Your task to perform on an android device: search for starred emails in the gmail app Image 0: 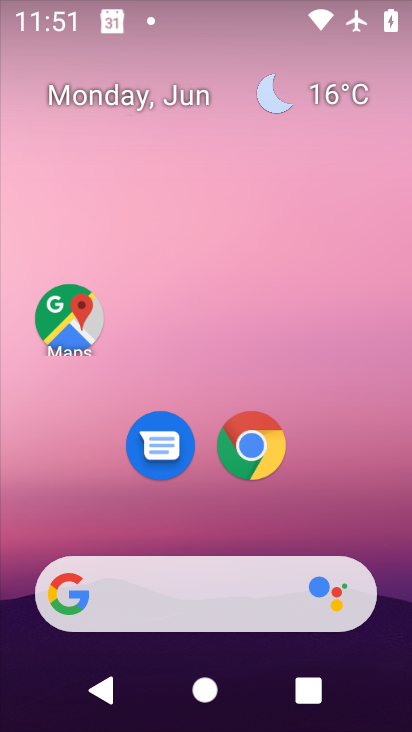
Step 0: drag from (353, 503) to (292, 132)
Your task to perform on an android device: search for starred emails in the gmail app Image 1: 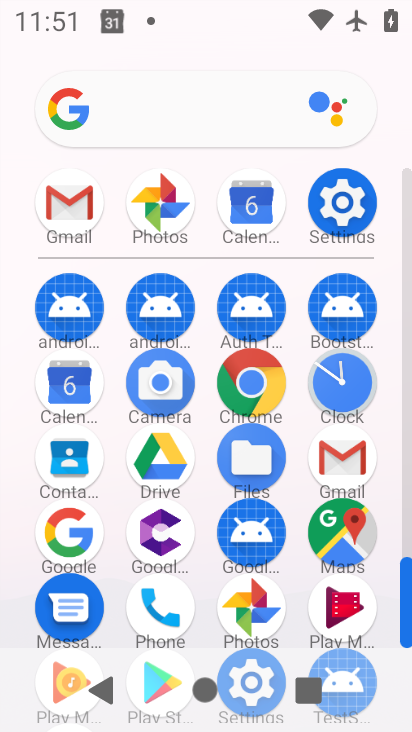
Step 1: click (80, 205)
Your task to perform on an android device: search for starred emails in the gmail app Image 2: 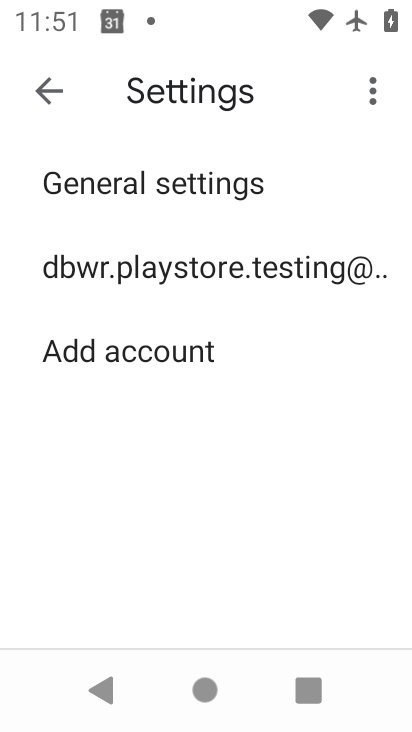
Step 2: click (189, 272)
Your task to perform on an android device: search for starred emails in the gmail app Image 3: 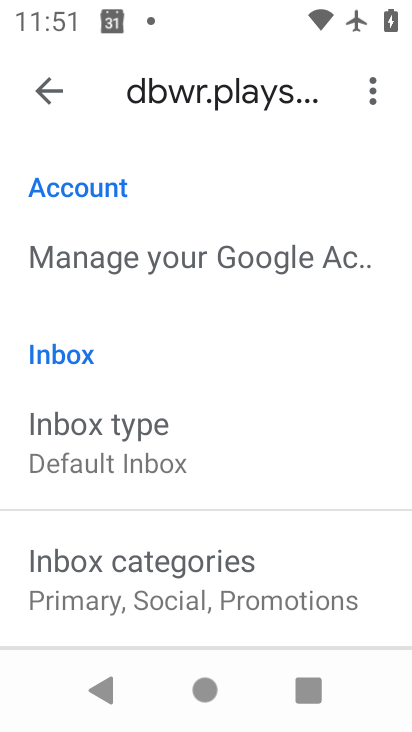
Step 3: click (48, 82)
Your task to perform on an android device: search for starred emails in the gmail app Image 4: 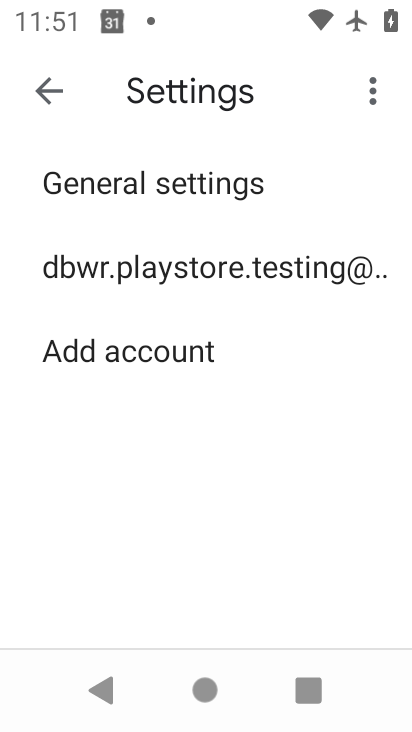
Step 4: click (48, 82)
Your task to perform on an android device: search for starred emails in the gmail app Image 5: 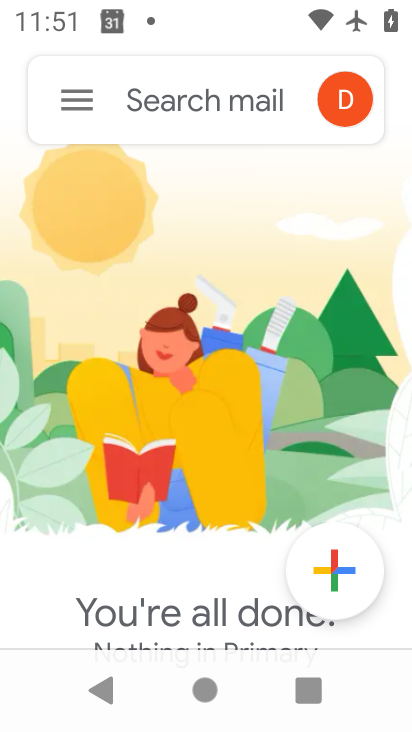
Step 5: click (64, 110)
Your task to perform on an android device: search for starred emails in the gmail app Image 6: 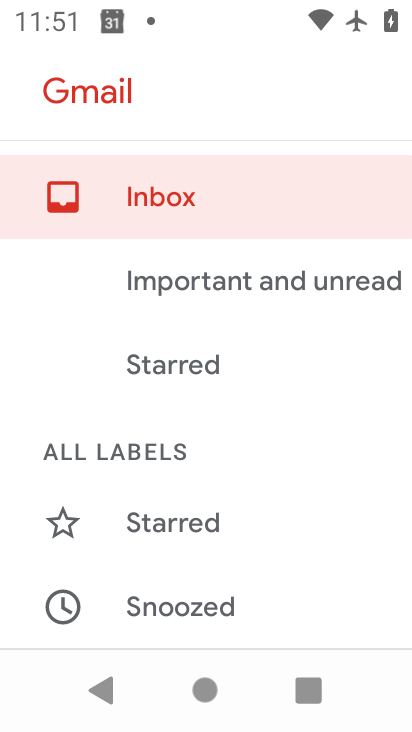
Step 6: click (199, 359)
Your task to perform on an android device: search for starred emails in the gmail app Image 7: 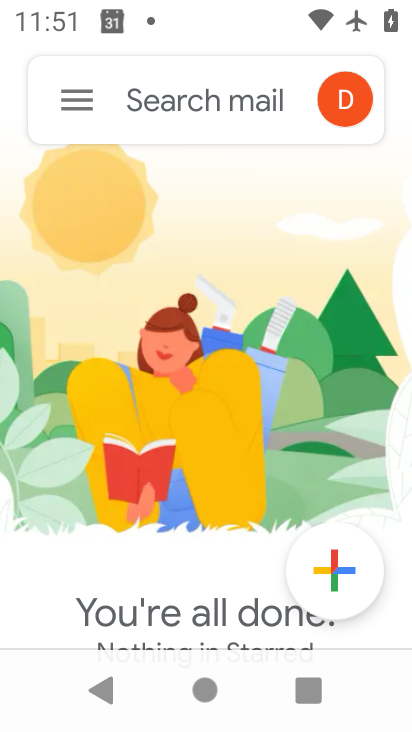
Step 7: task complete